Your task to perform on an android device: star an email in the gmail app Image 0: 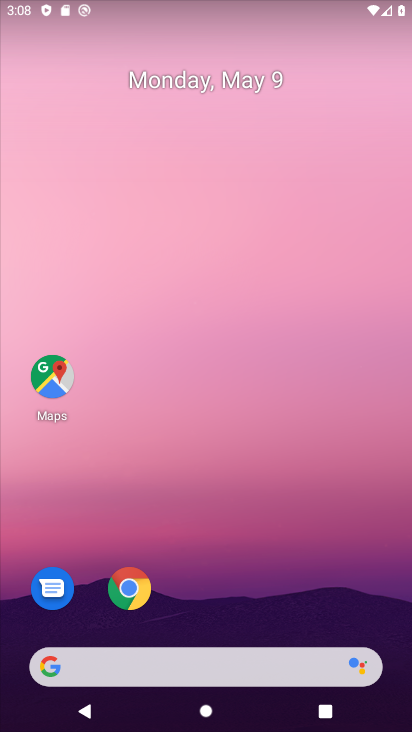
Step 0: drag from (215, 584) to (249, 57)
Your task to perform on an android device: star an email in the gmail app Image 1: 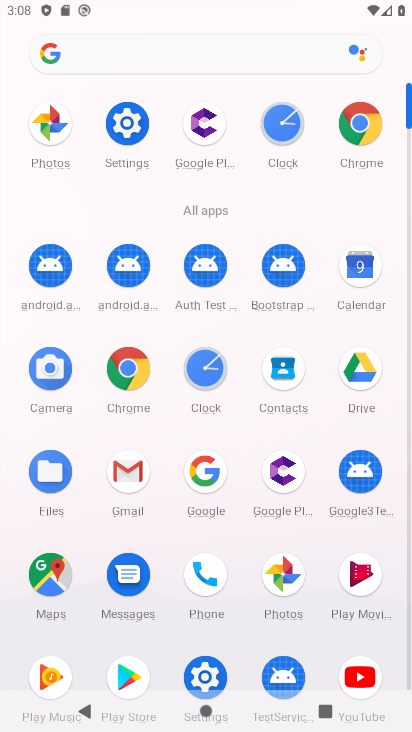
Step 1: click (127, 473)
Your task to perform on an android device: star an email in the gmail app Image 2: 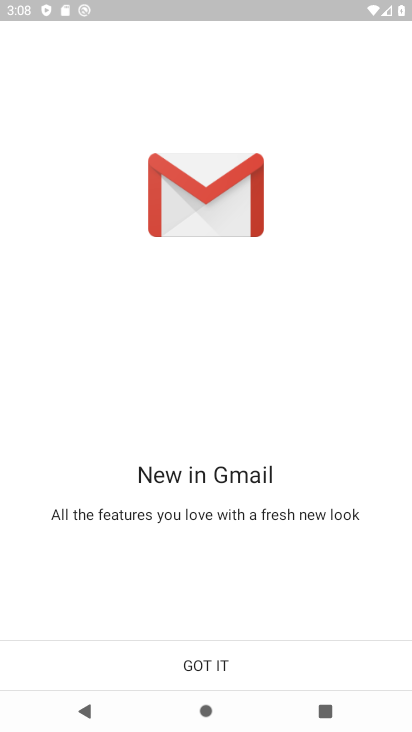
Step 2: click (205, 664)
Your task to perform on an android device: star an email in the gmail app Image 3: 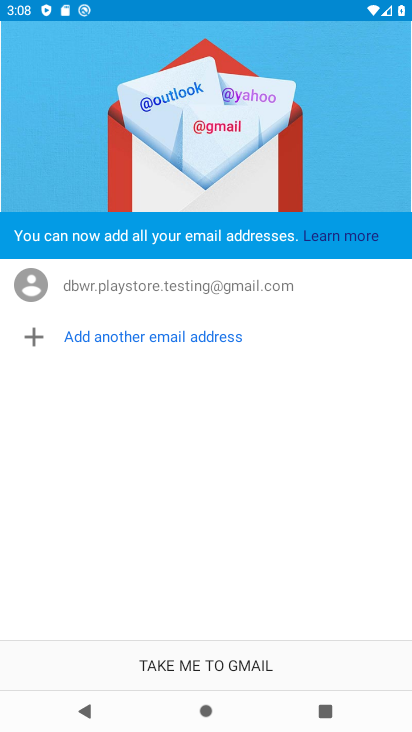
Step 3: click (211, 671)
Your task to perform on an android device: star an email in the gmail app Image 4: 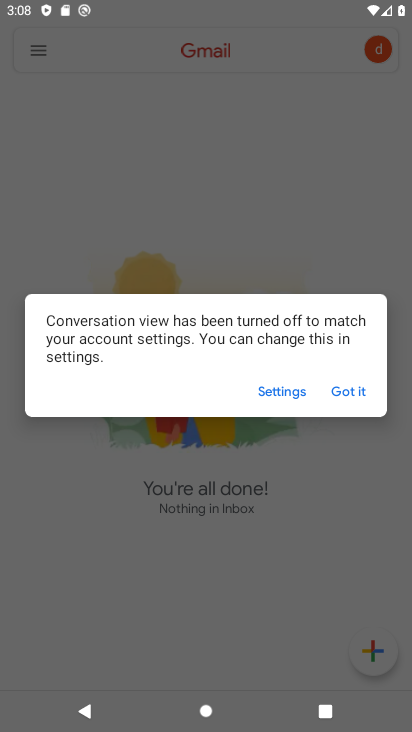
Step 4: click (352, 396)
Your task to perform on an android device: star an email in the gmail app Image 5: 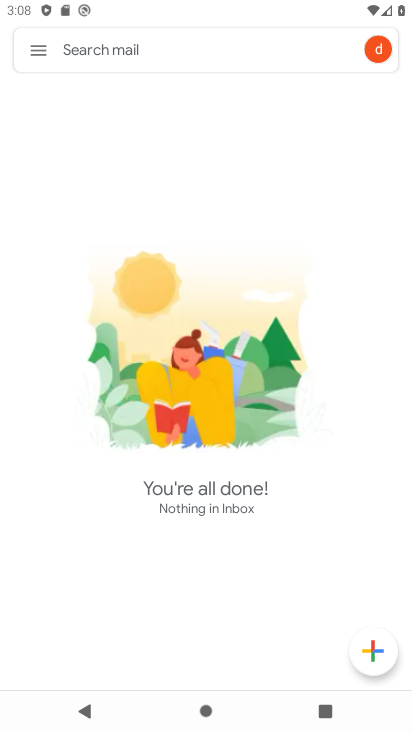
Step 5: click (29, 53)
Your task to perform on an android device: star an email in the gmail app Image 6: 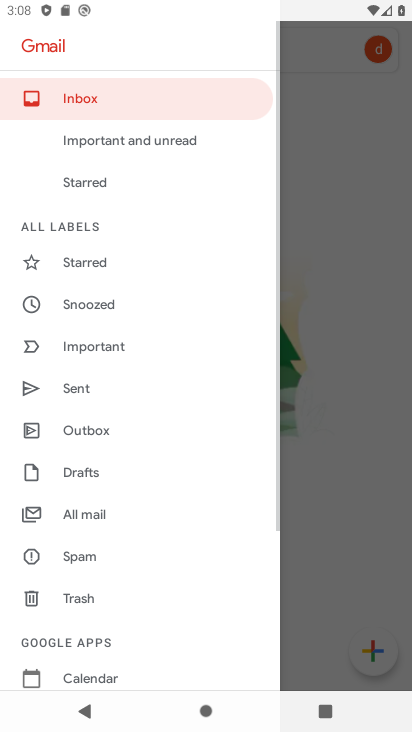
Step 6: click (112, 509)
Your task to perform on an android device: star an email in the gmail app Image 7: 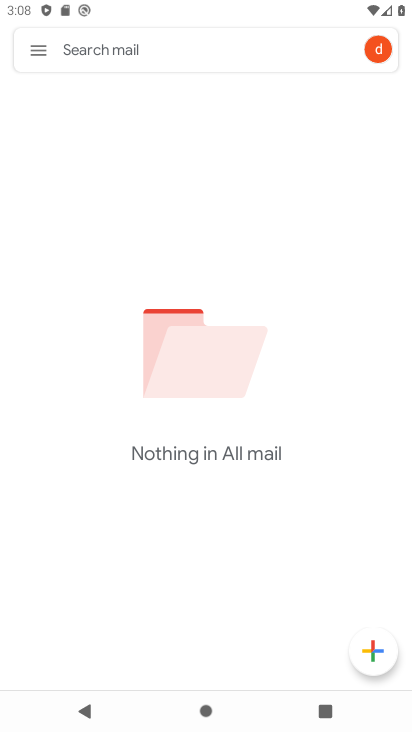
Step 7: task complete